Your task to perform on an android device: check android version Image 0: 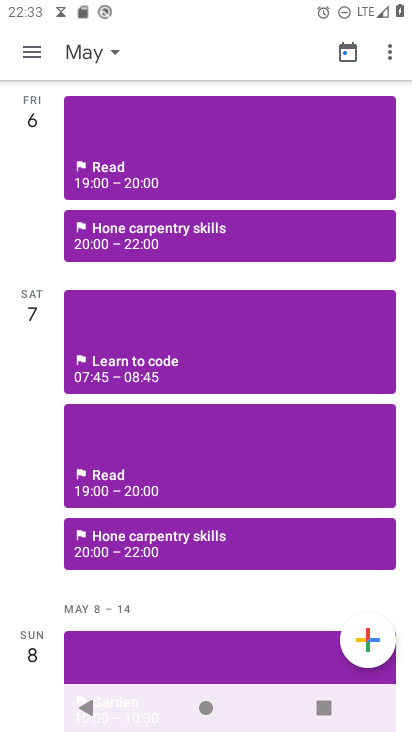
Step 0: press home button
Your task to perform on an android device: check android version Image 1: 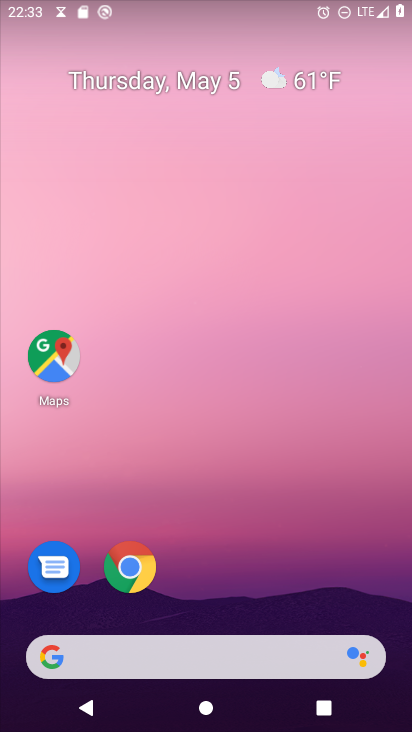
Step 1: drag from (212, 726) to (175, 277)
Your task to perform on an android device: check android version Image 2: 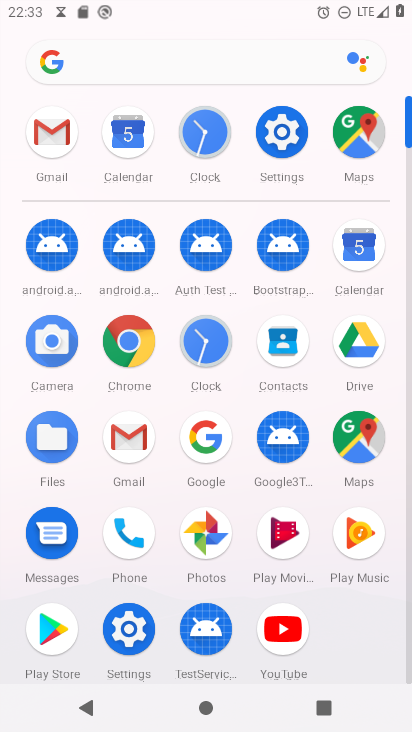
Step 2: click (281, 133)
Your task to perform on an android device: check android version Image 3: 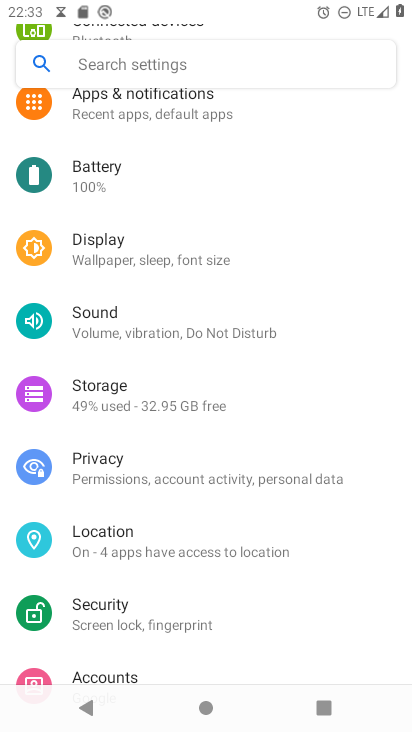
Step 3: drag from (179, 652) to (155, 236)
Your task to perform on an android device: check android version Image 4: 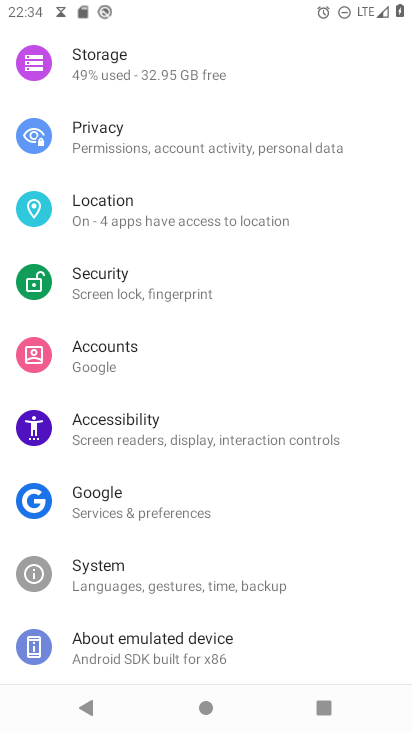
Step 4: drag from (156, 655) to (130, 247)
Your task to perform on an android device: check android version Image 5: 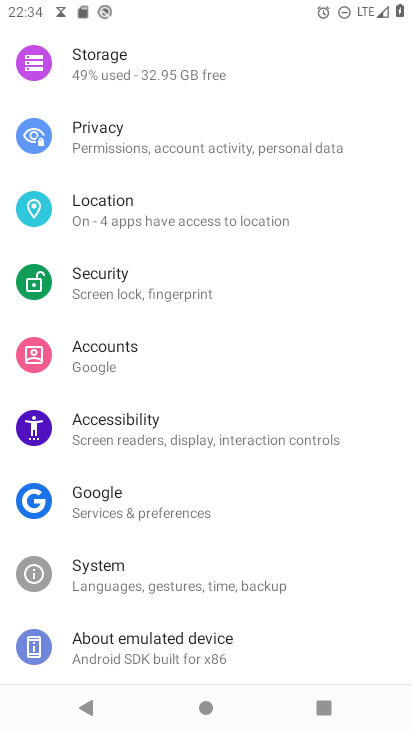
Step 5: click (165, 642)
Your task to perform on an android device: check android version Image 6: 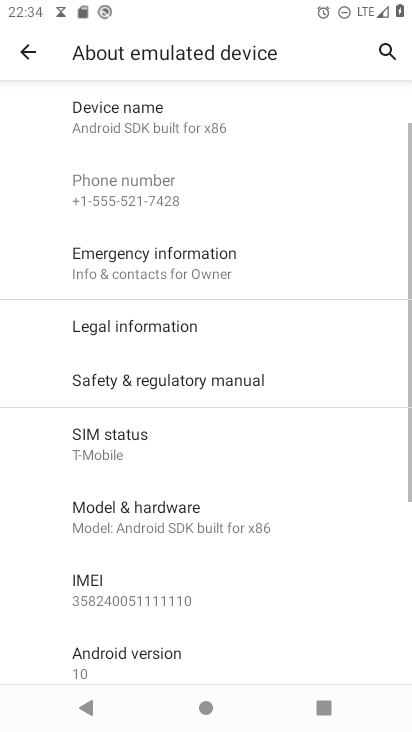
Step 6: click (145, 654)
Your task to perform on an android device: check android version Image 7: 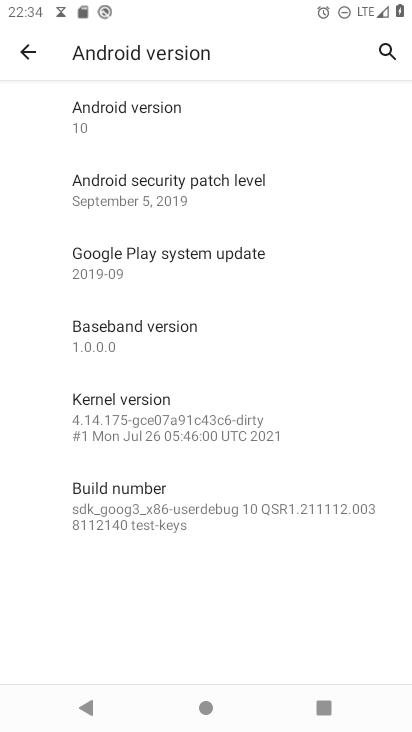
Step 7: task complete